Your task to perform on an android device: Go to Maps Image 0: 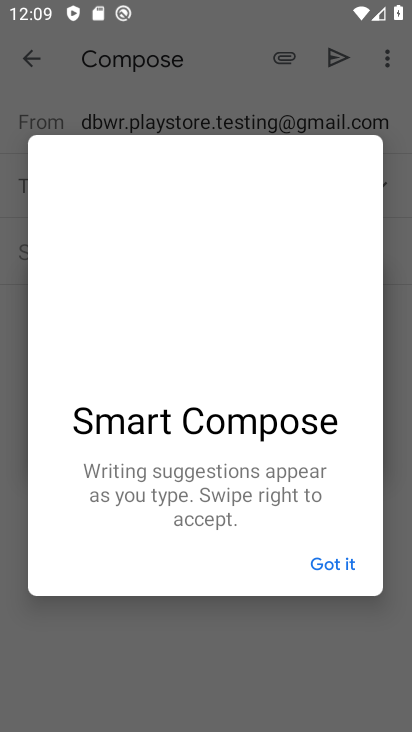
Step 0: press home button
Your task to perform on an android device: Go to Maps Image 1: 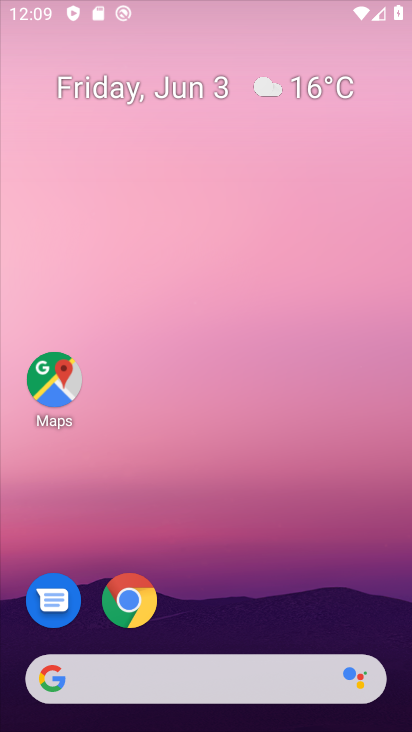
Step 1: click (339, 639)
Your task to perform on an android device: Go to Maps Image 2: 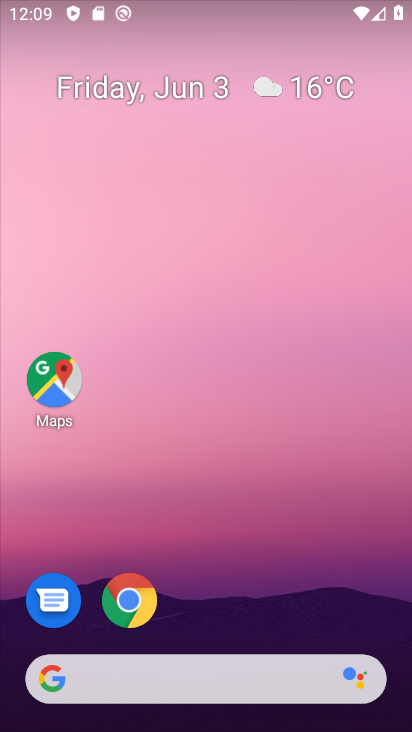
Step 2: click (56, 373)
Your task to perform on an android device: Go to Maps Image 3: 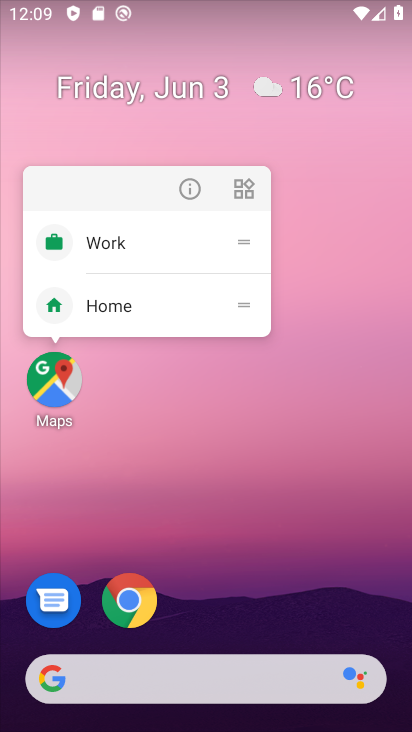
Step 3: click (66, 379)
Your task to perform on an android device: Go to Maps Image 4: 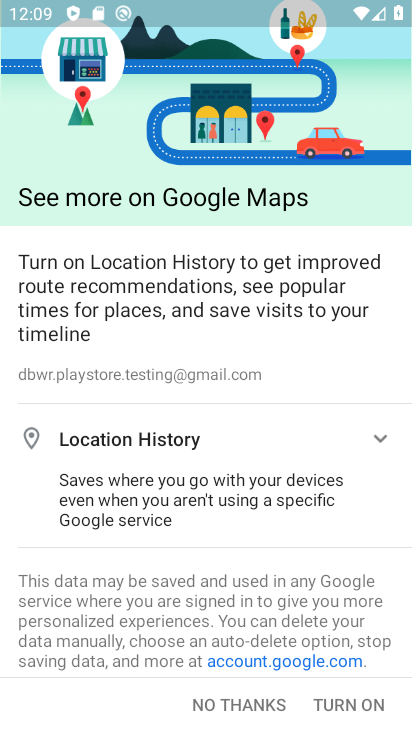
Step 4: click (249, 695)
Your task to perform on an android device: Go to Maps Image 5: 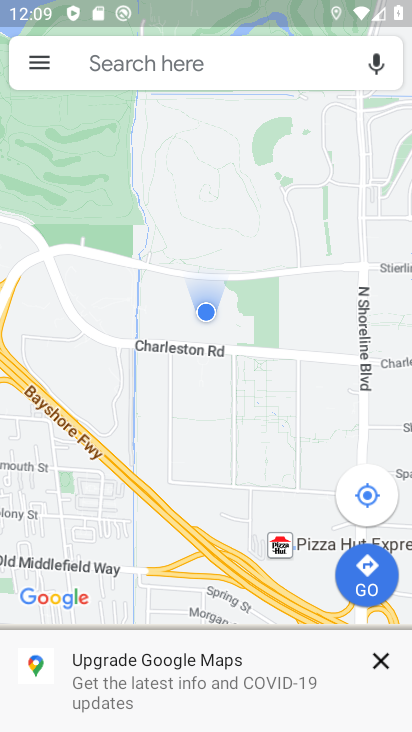
Step 5: task complete